Your task to perform on an android device: refresh tabs in the chrome app Image 0: 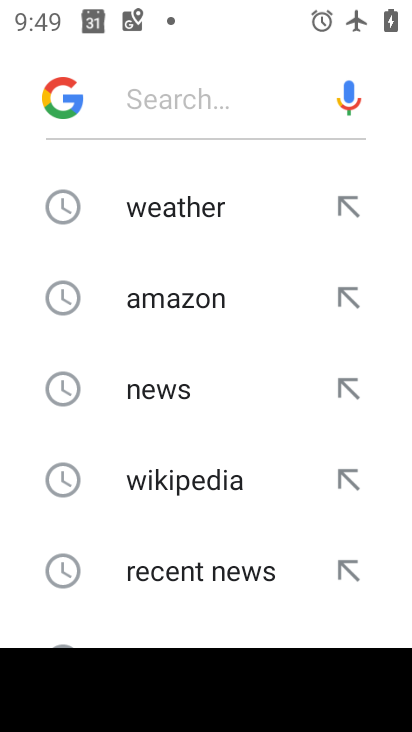
Step 0: press back button
Your task to perform on an android device: refresh tabs in the chrome app Image 1: 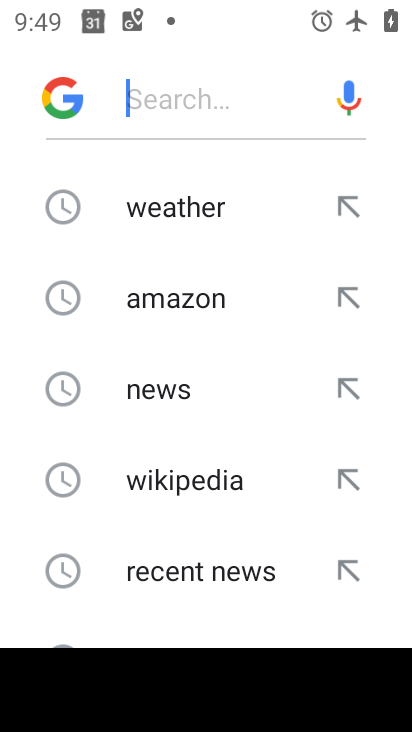
Step 1: press back button
Your task to perform on an android device: refresh tabs in the chrome app Image 2: 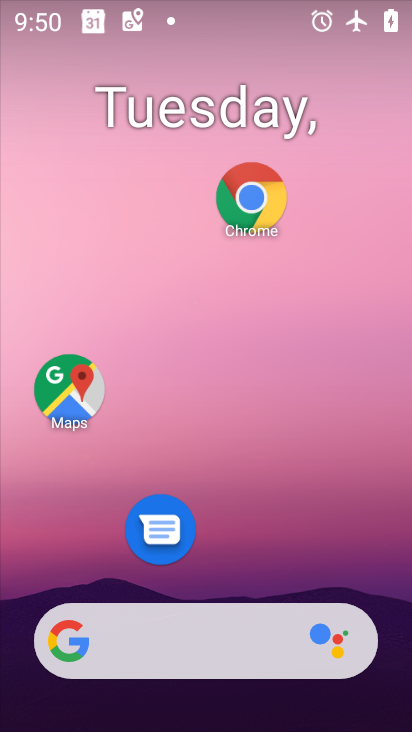
Step 2: click (227, 208)
Your task to perform on an android device: refresh tabs in the chrome app Image 3: 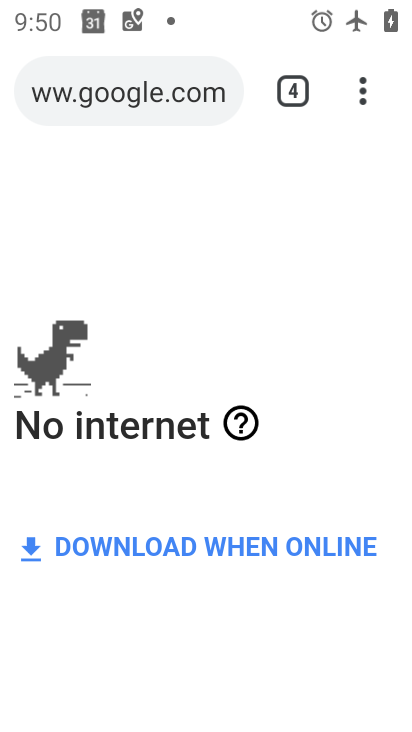
Step 3: click (364, 67)
Your task to perform on an android device: refresh tabs in the chrome app Image 4: 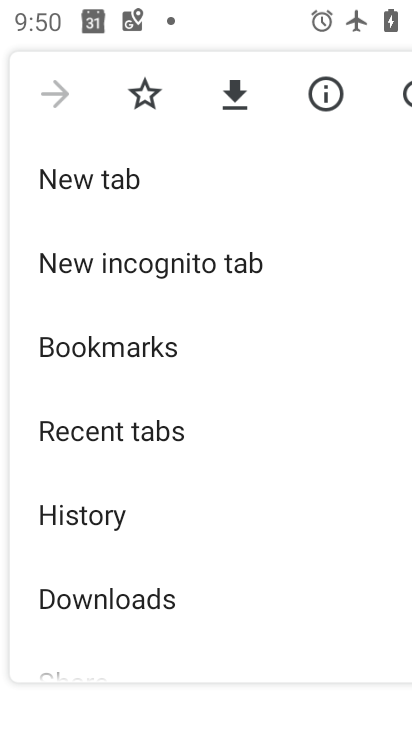
Step 4: click (397, 82)
Your task to perform on an android device: refresh tabs in the chrome app Image 5: 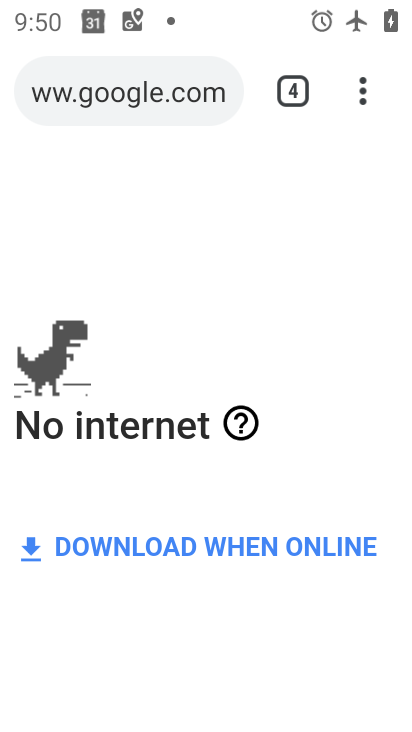
Step 5: task complete